Your task to perform on an android device: Open calendar and show me the fourth week of next month Image 0: 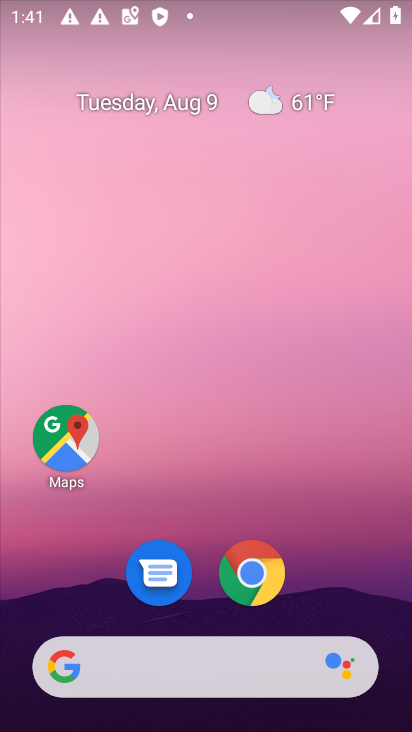
Step 0: drag from (116, 410) to (233, 172)
Your task to perform on an android device: Open calendar and show me the fourth week of next month Image 1: 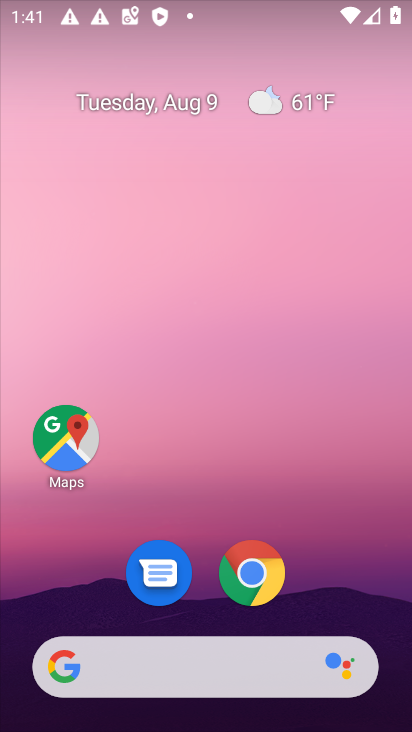
Step 1: drag from (64, 579) to (271, 146)
Your task to perform on an android device: Open calendar and show me the fourth week of next month Image 2: 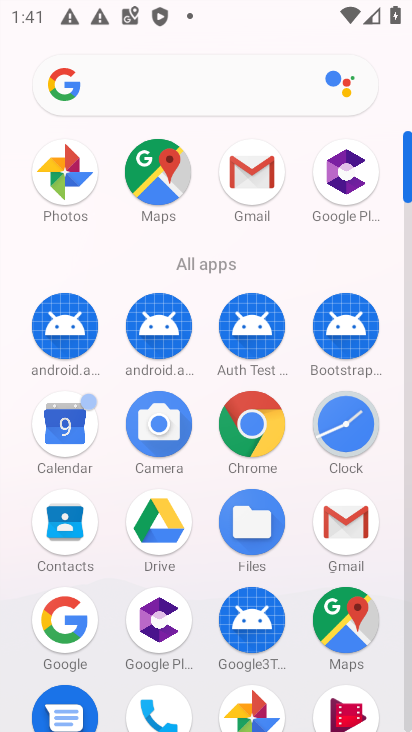
Step 2: click (67, 441)
Your task to perform on an android device: Open calendar and show me the fourth week of next month Image 3: 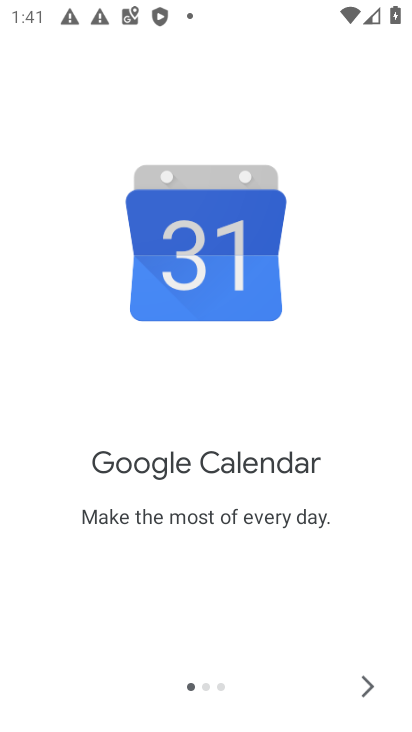
Step 3: click (368, 684)
Your task to perform on an android device: Open calendar and show me the fourth week of next month Image 4: 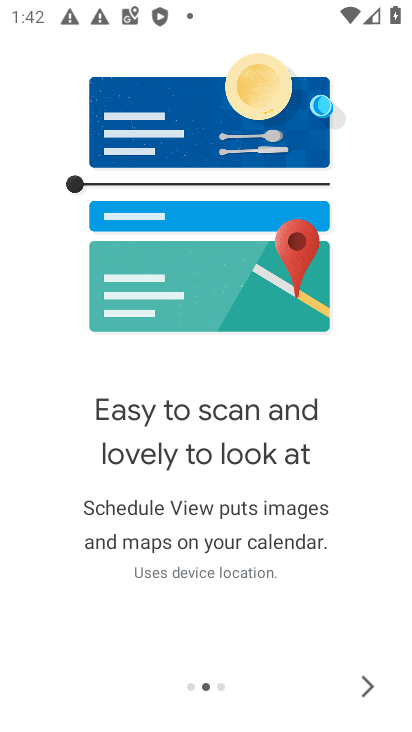
Step 4: click (365, 684)
Your task to perform on an android device: Open calendar and show me the fourth week of next month Image 5: 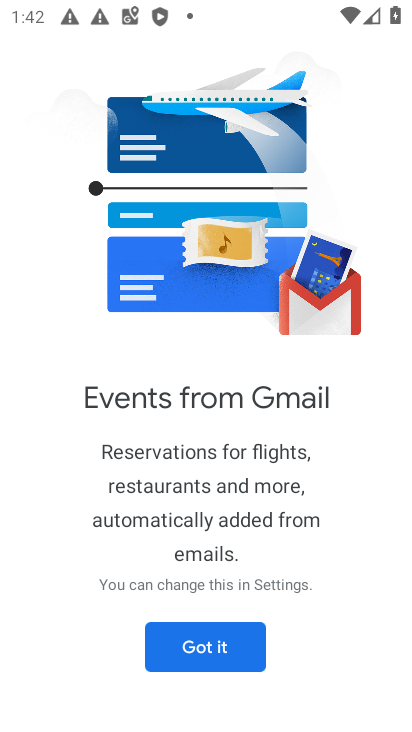
Step 5: click (205, 655)
Your task to perform on an android device: Open calendar and show me the fourth week of next month Image 6: 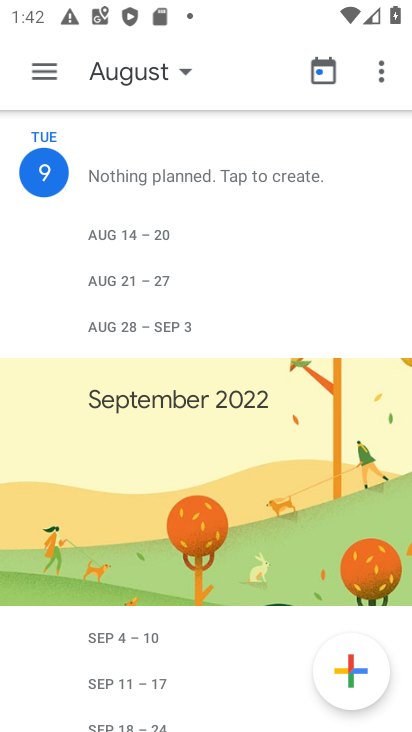
Step 6: click (132, 77)
Your task to perform on an android device: Open calendar and show me the fourth week of next month Image 7: 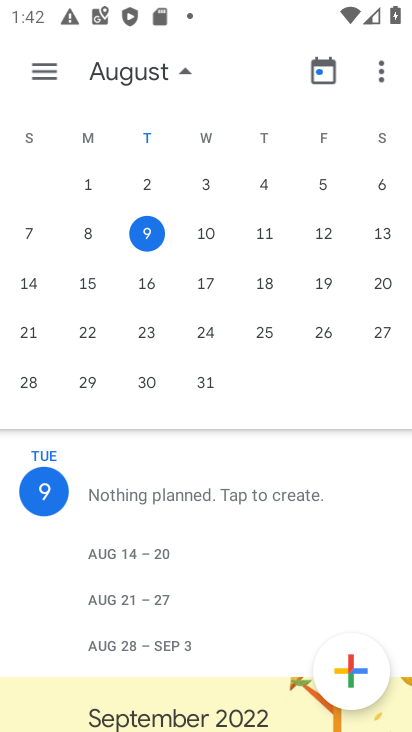
Step 7: task complete